Your task to perform on an android device: toggle translation in the chrome app Image 0: 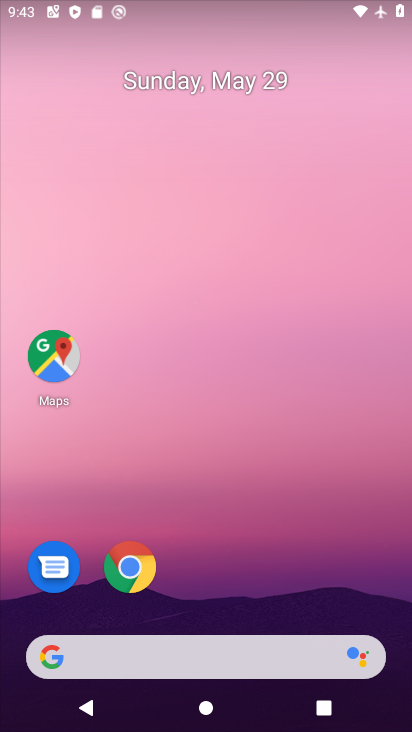
Step 0: click (129, 569)
Your task to perform on an android device: toggle translation in the chrome app Image 1: 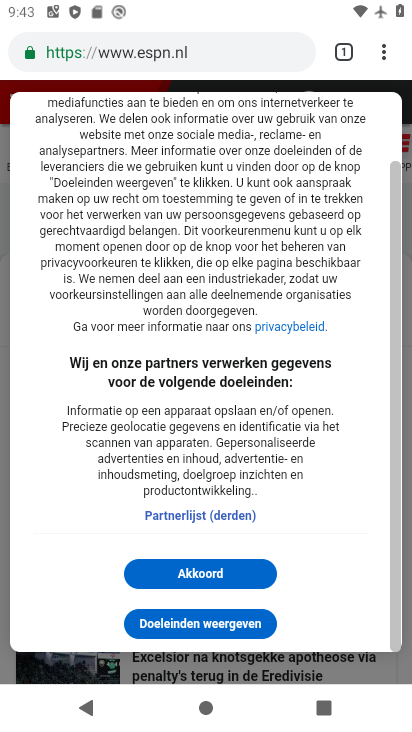
Step 1: click (382, 56)
Your task to perform on an android device: toggle translation in the chrome app Image 2: 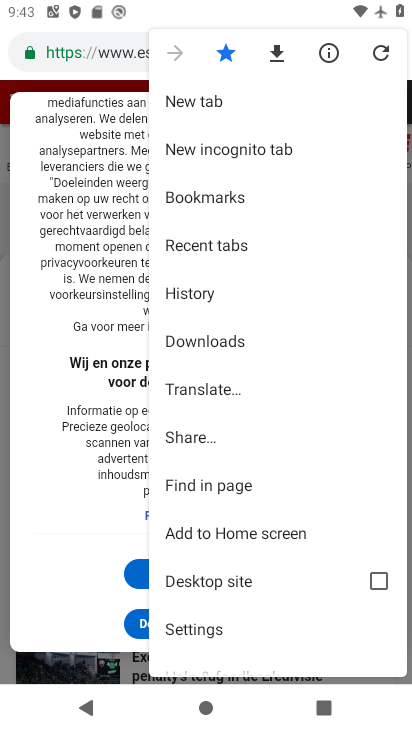
Step 2: click (205, 630)
Your task to perform on an android device: toggle translation in the chrome app Image 3: 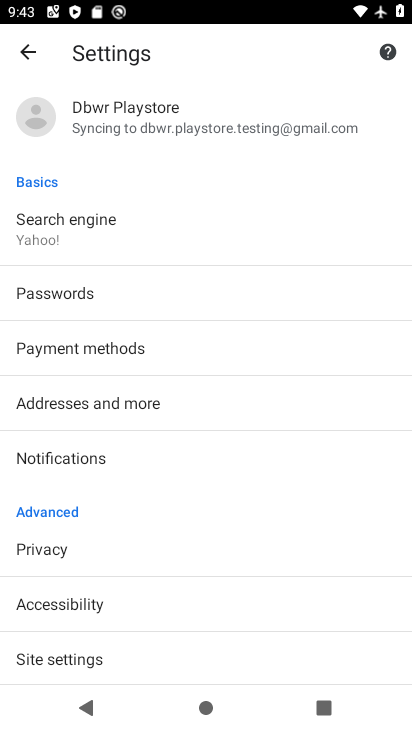
Step 3: drag from (262, 628) to (242, 246)
Your task to perform on an android device: toggle translation in the chrome app Image 4: 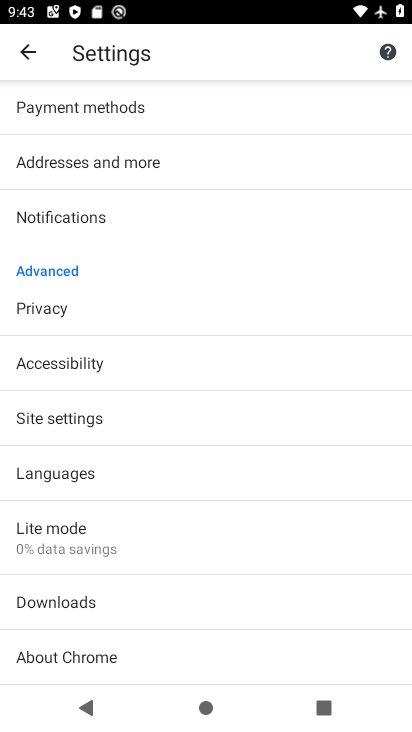
Step 4: click (62, 475)
Your task to perform on an android device: toggle translation in the chrome app Image 5: 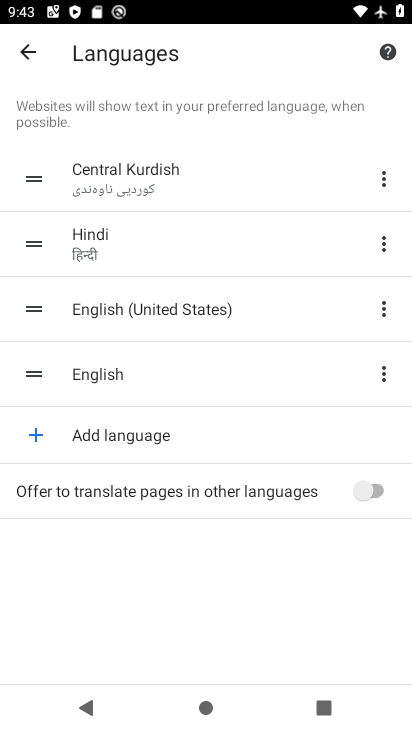
Step 5: click (382, 489)
Your task to perform on an android device: toggle translation in the chrome app Image 6: 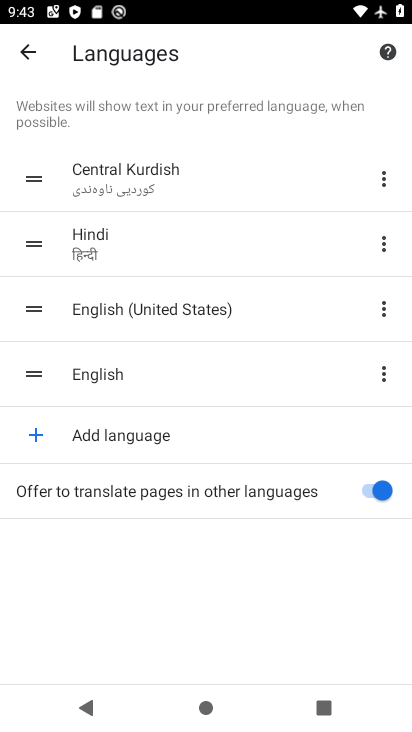
Step 6: task complete